Your task to perform on an android device: Open network settings Image 0: 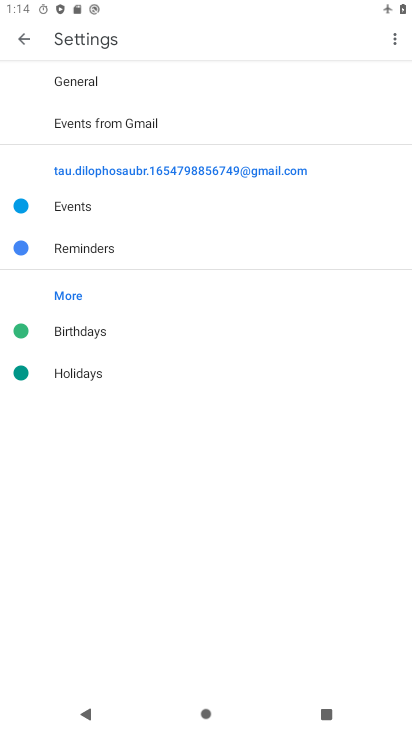
Step 0: press home button
Your task to perform on an android device: Open network settings Image 1: 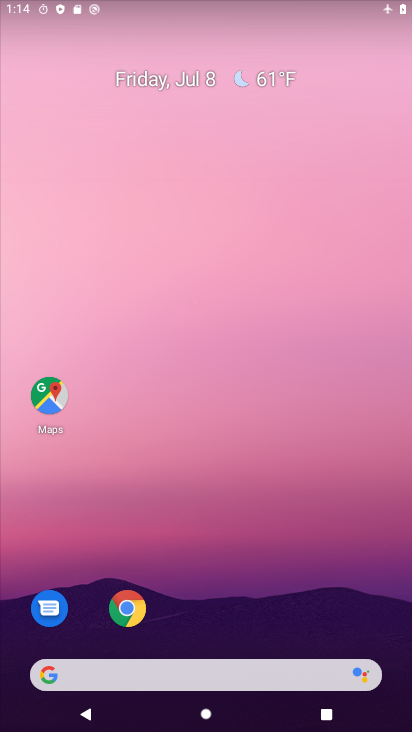
Step 1: drag from (220, 600) to (221, 83)
Your task to perform on an android device: Open network settings Image 2: 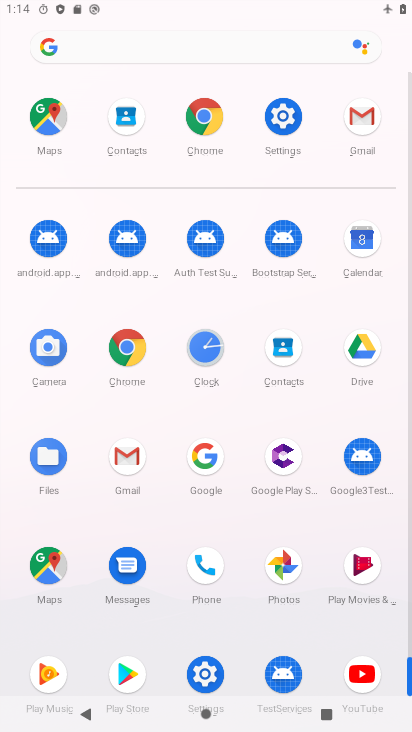
Step 2: click (285, 112)
Your task to perform on an android device: Open network settings Image 3: 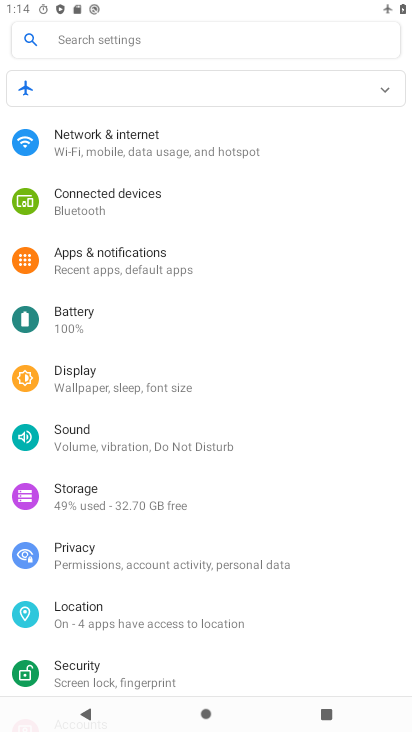
Step 3: click (103, 158)
Your task to perform on an android device: Open network settings Image 4: 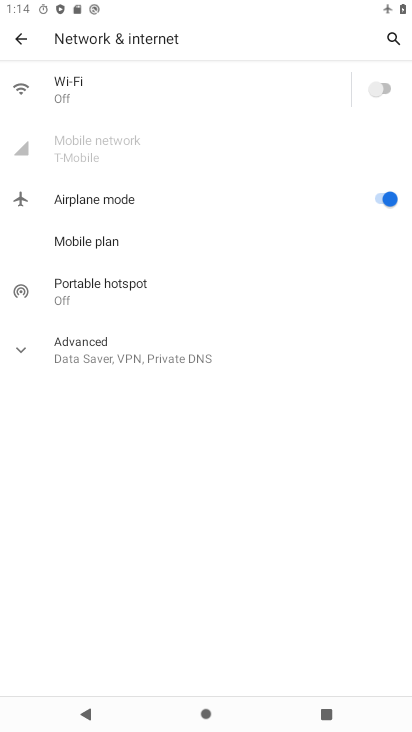
Step 4: click (386, 193)
Your task to perform on an android device: Open network settings Image 5: 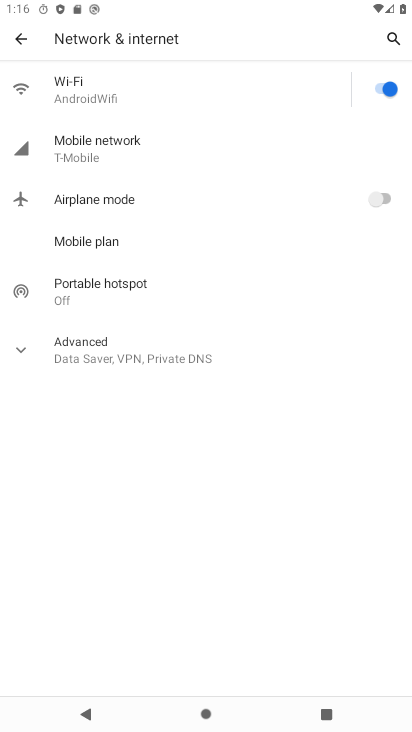
Step 5: task complete